Your task to perform on an android device: Open Chrome and go to the settings page Image 0: 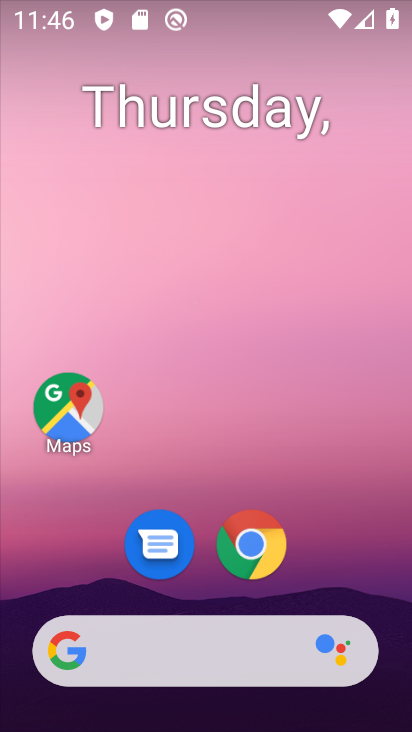
Step 0: drag from (178, 0) to (340, 8)
Your task to perform on an android device: Open Chrome and go to the settings page Image 1: 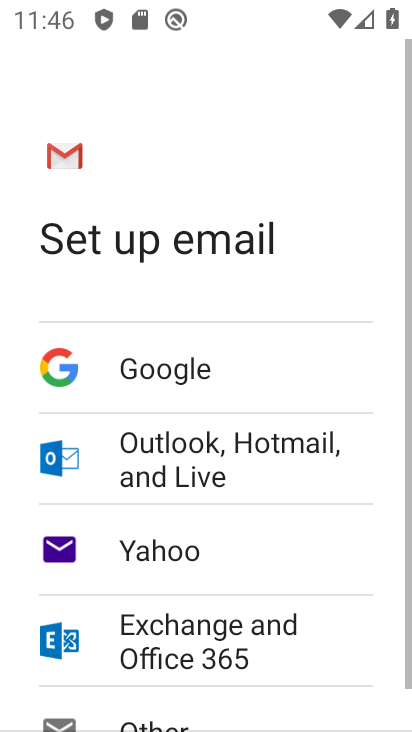
Step 1: press home button
Your task to perform on an android device: Open Chrome and go to the settings page Image 2: 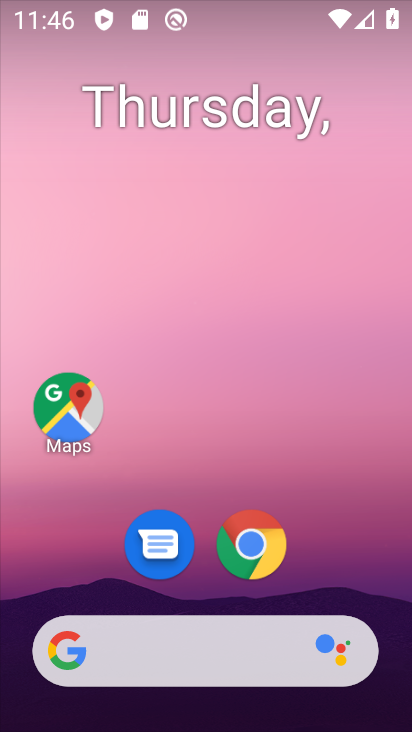
Step 2: click (249, 551)
Your task to perform on an android device: Open Chrome and go to the settings page Image 3: 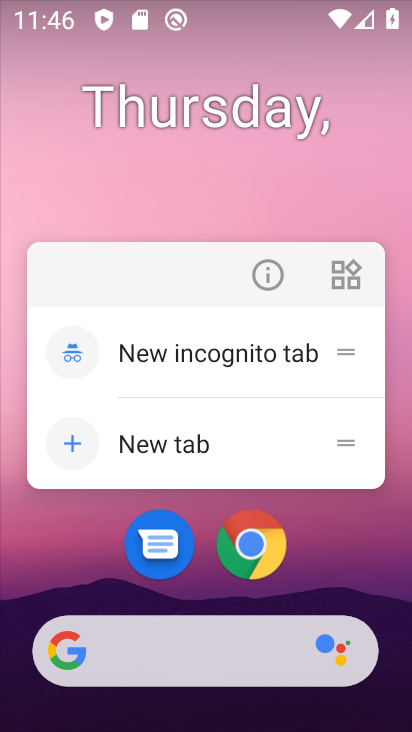
Step 3: click (258, 545)
Your task to perform on an android device: Open Chrome and go to the settings page Image 4: 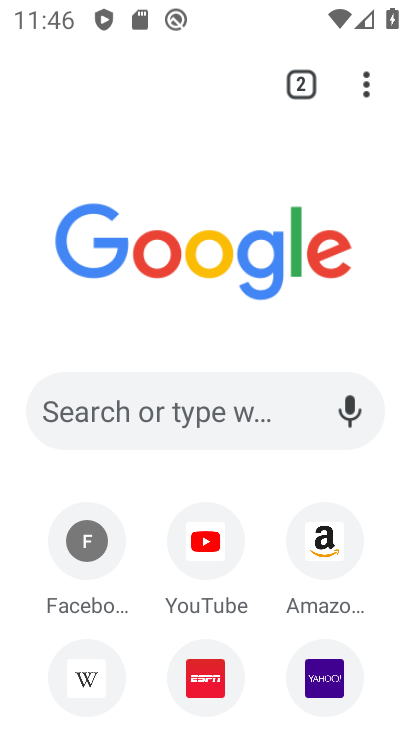
Step 4: click (370, 103)
Your task to perform on an android device: Open Chrome and go to the settings page Image 5: 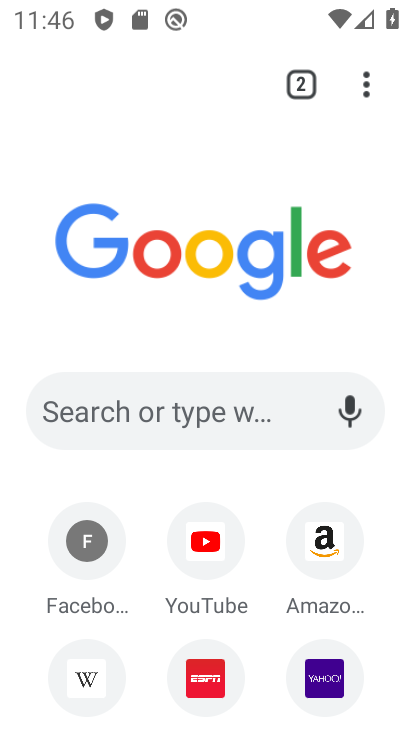
Step 5: click (370, 101)
Your task to perform on an android device: Open Chrome and go to the settings page Image 6: 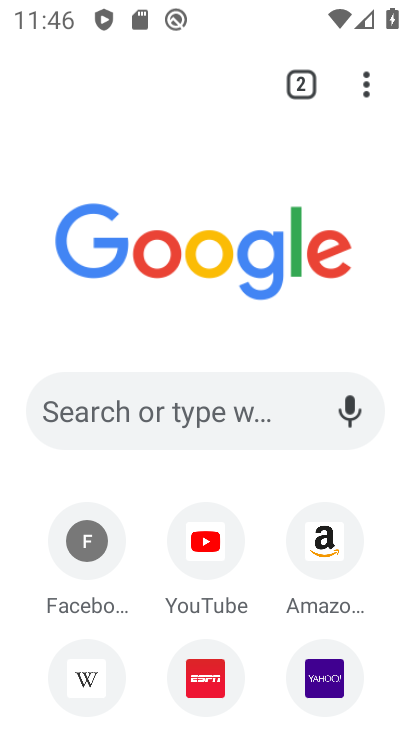
Step 6: task complete